Your task to perform on an android device: Go to Reddit.com Image 0: 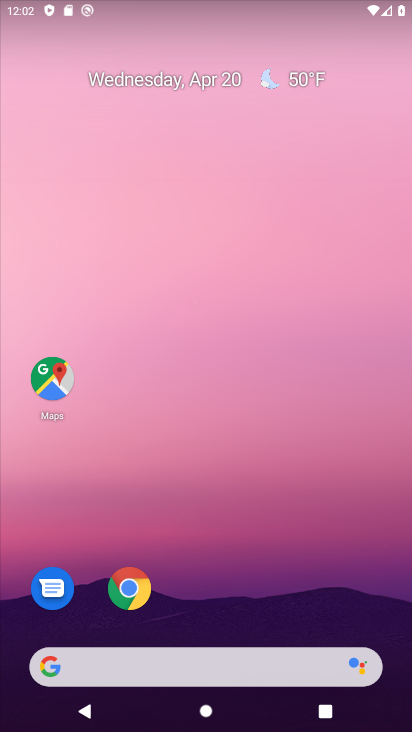
Step 0: click (126, 584)
Your task to perform on an android device: Go to Reddit.com Image 1: 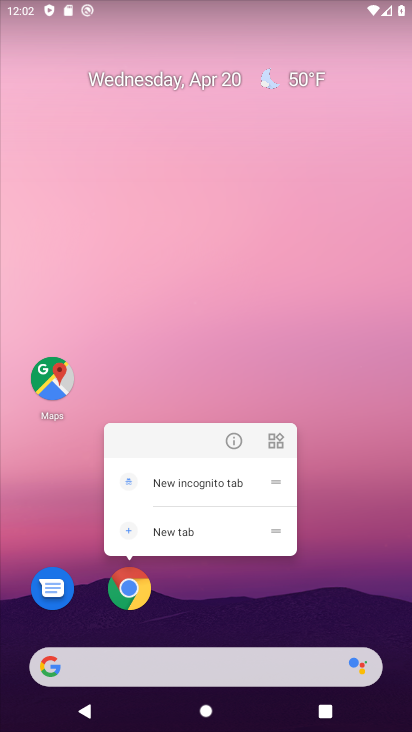
Step 1: click (126, 585)
Your task to perform on an android device: Go to Reddit.com Image 2: 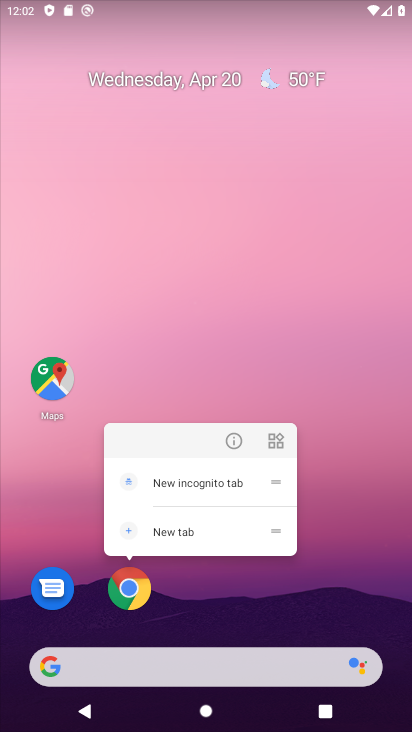
Step 2: click (132, 586)
Your task to perform on an android device: Go to Reddit.com Image 3: 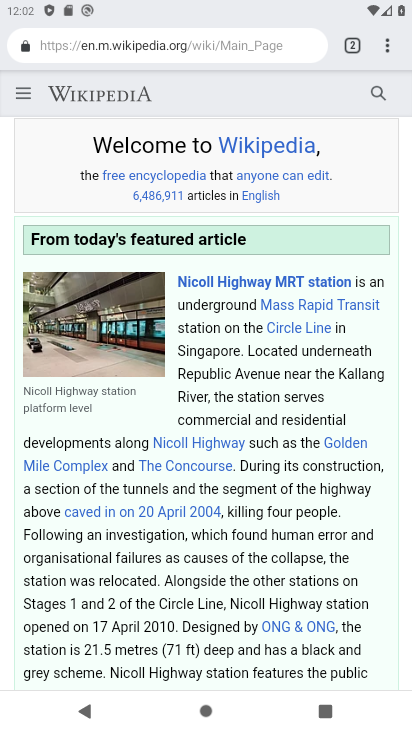
Step 3: click (351, 45)
Your task to perform on an android device: Go to Reddit.com Image 4: 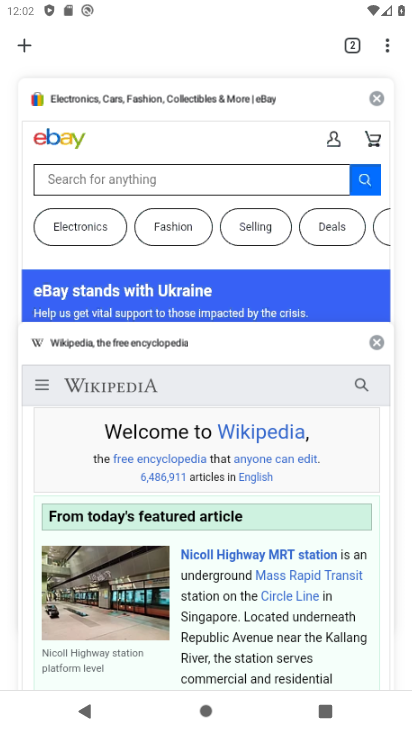
Step 4: click (22, 44)
Your task to perform on an android device: Go to Reddit.com Image 5: 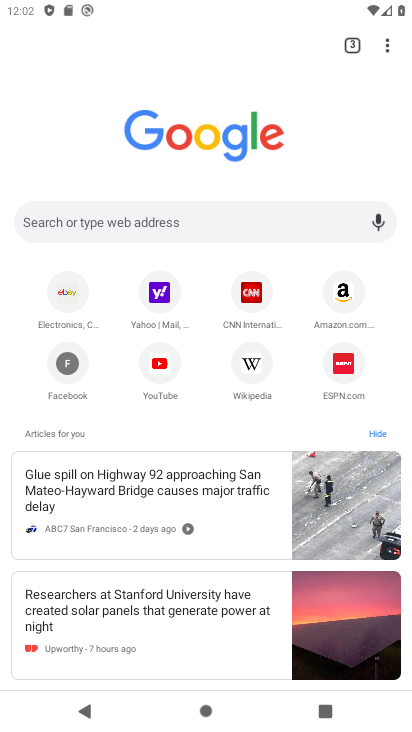
Step 5: click (166, 214)
Your task to perform on an android device: Go to Reddit.com Image 6: 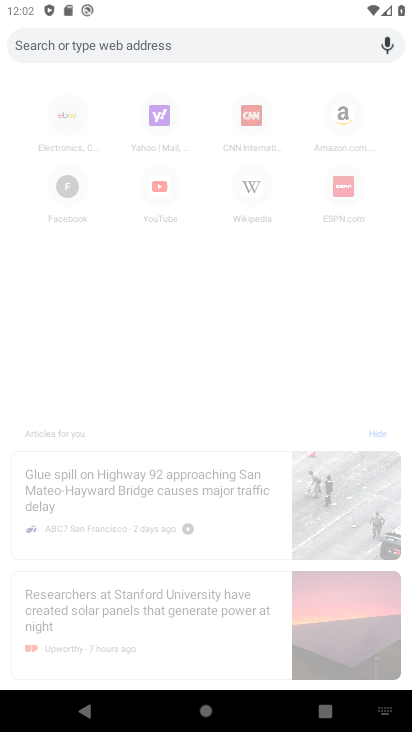
Step 6: type "reddit"
Your task to perform on an android device: Go to Reddit.com Image 7: 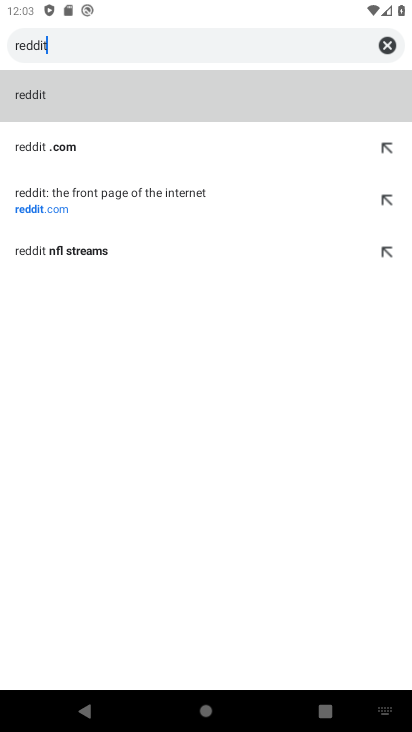
Step 7: click (93, 204)
Your task to perform on an android device: Go to Reddit.com Image 8: 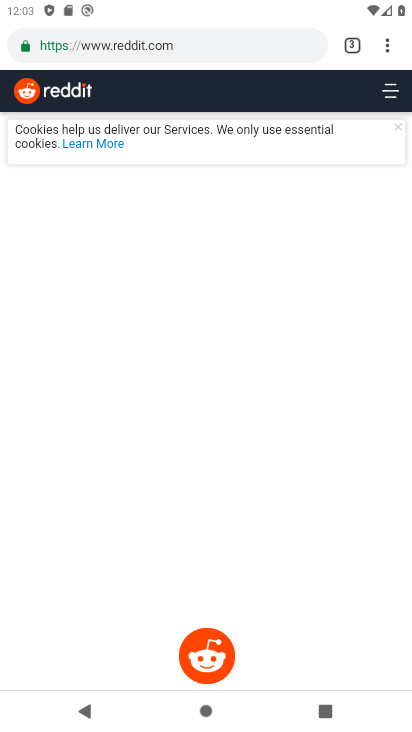
Step 8: task complete